Your task to perform on an android device: Find coffee shops on Maps Image 0: 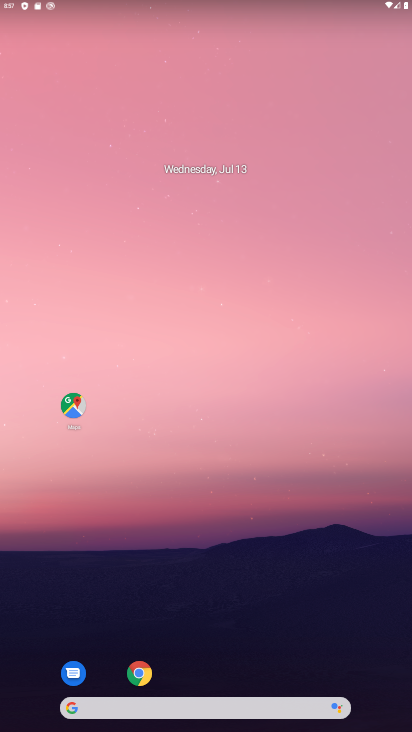
Step 0: click (74, 406)
Your task to perform on an android device: Find coffee shops on Maps Image 1: 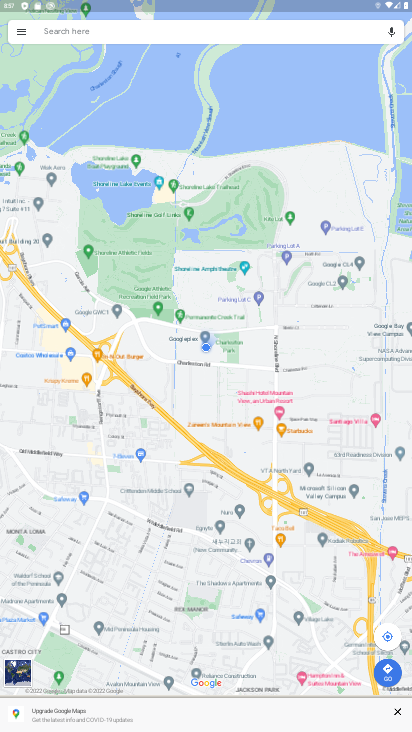
Step 1: click (82, 33)
Your task to perform on an android device: Find coffee shops on Maps Image 2: 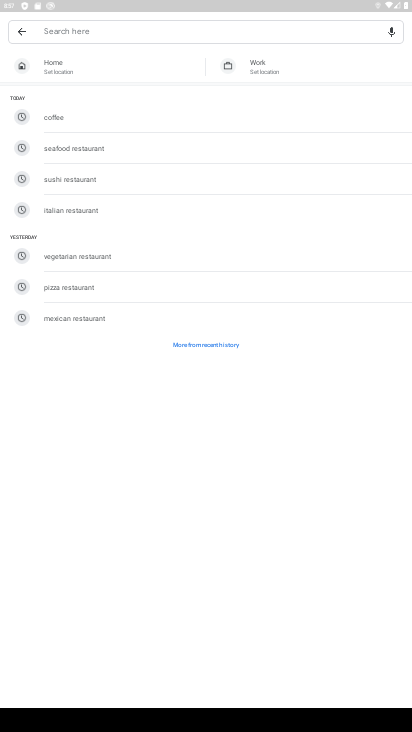
Step 2: click (48, 121)
Your task to perform on an android device: Find coffee shops on Maps Image 3: 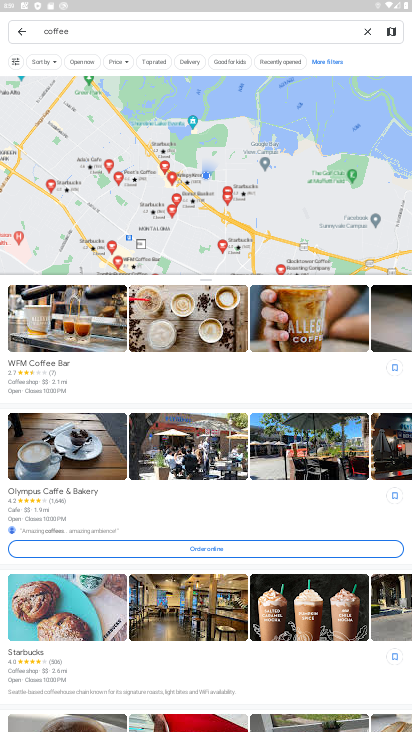
Step 3: task complete